Your task to perform on an android device: add a label to a message in the gmail app Image 0: 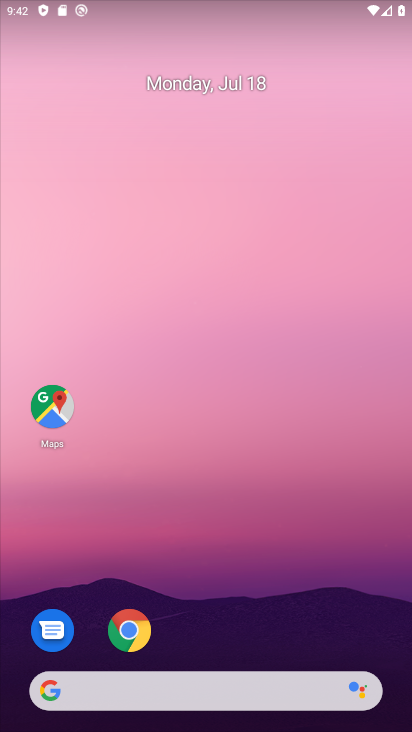
Step 0: press home button
Your task to perform on an android device: add a label to a message in the gmail app Image 1: 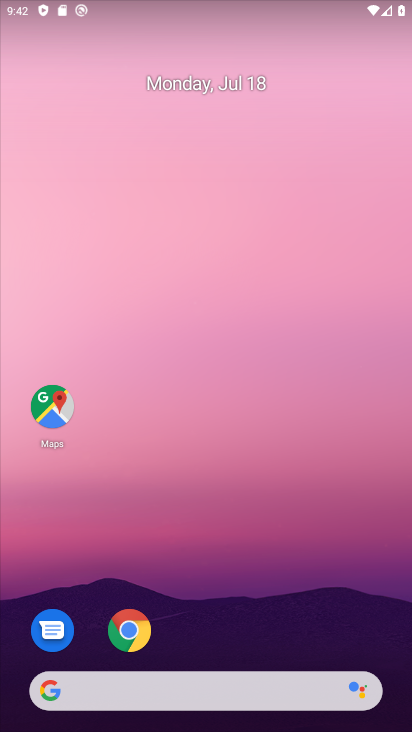
Step 1: drag from (244, 638) to (320, 4)
Your task to perform on an android device: add a label to a message in the gmail app Image 2: 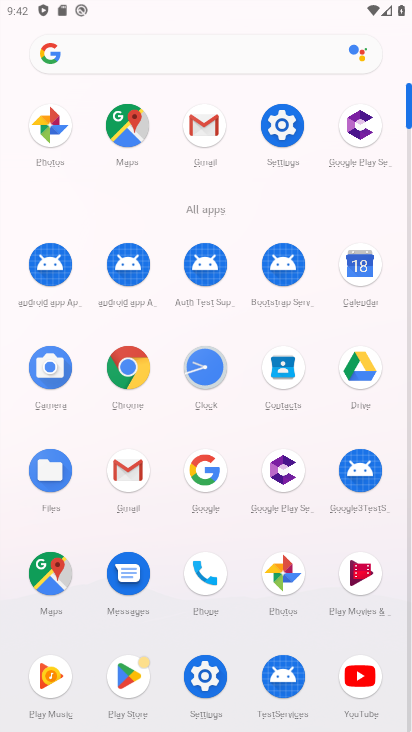
Step 2: click (201, 144)
Your task to perform on an android device: add a label to a message in the gmail app Image 3: 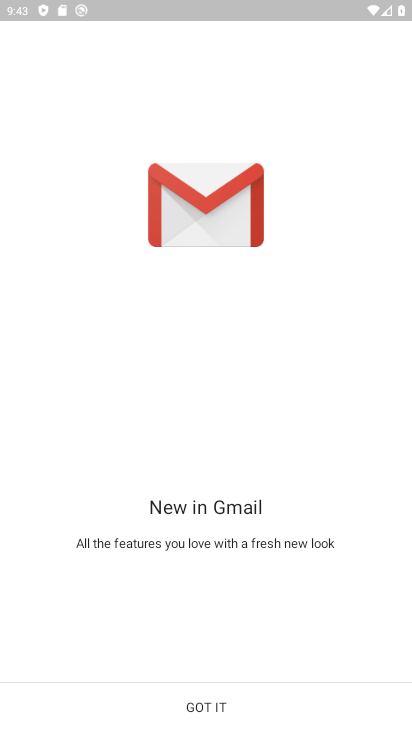
Step 3: click (84, 696)
Your task to perform on an android device: add a label to a message in the gmail app Image 4: 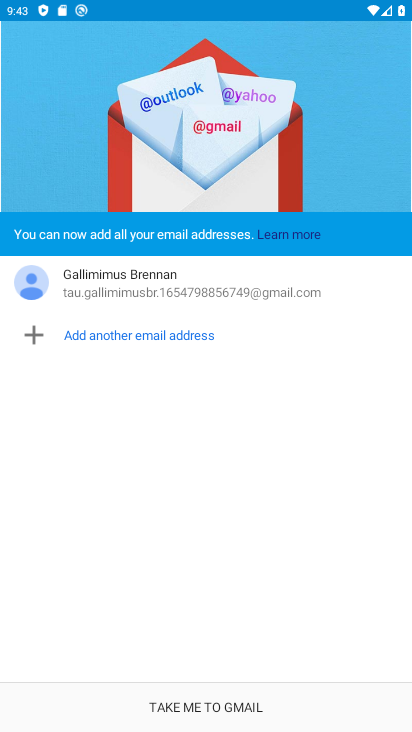
Step 4: click (84, 696)
Your task to perform on an android device: add a label to a message in the gmail app Image 5: 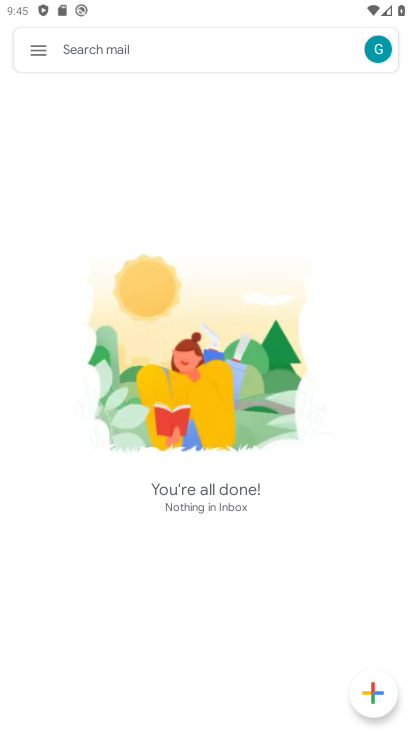
Step 5: task complete